Your task to perform on an android device: check data usage Image 0: 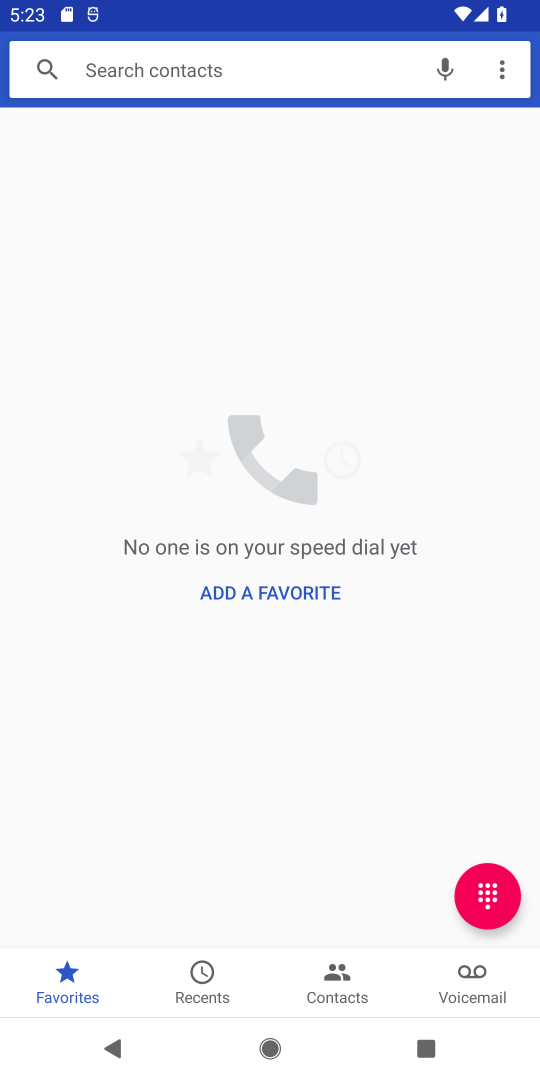
Step 0: press home button
Your task to perform on an android device: check data usage Image 1: 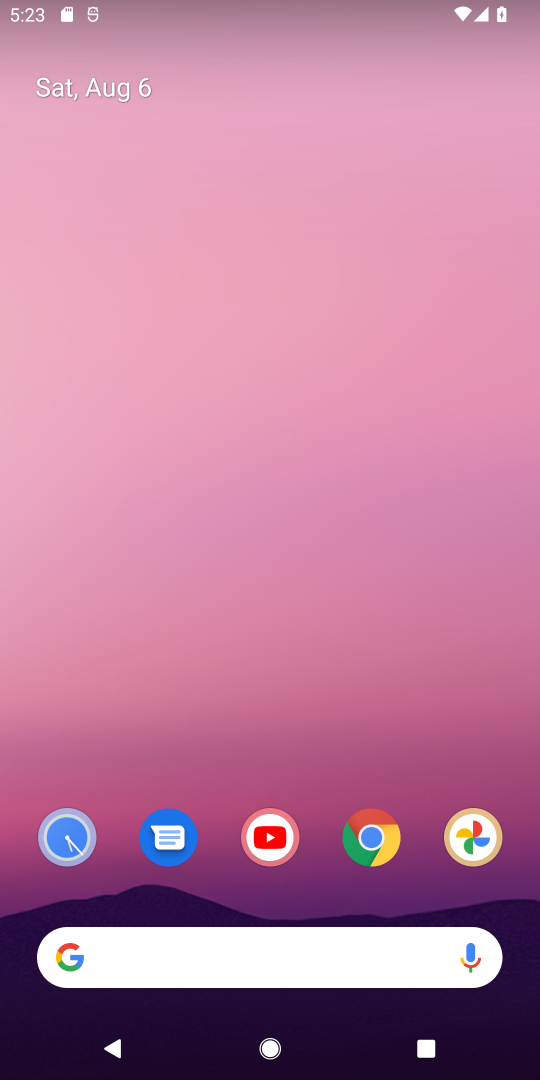
Step 1: drag from (286, 748) to (349, 233)
Your task to perform on an android device: check data usage Image 2: 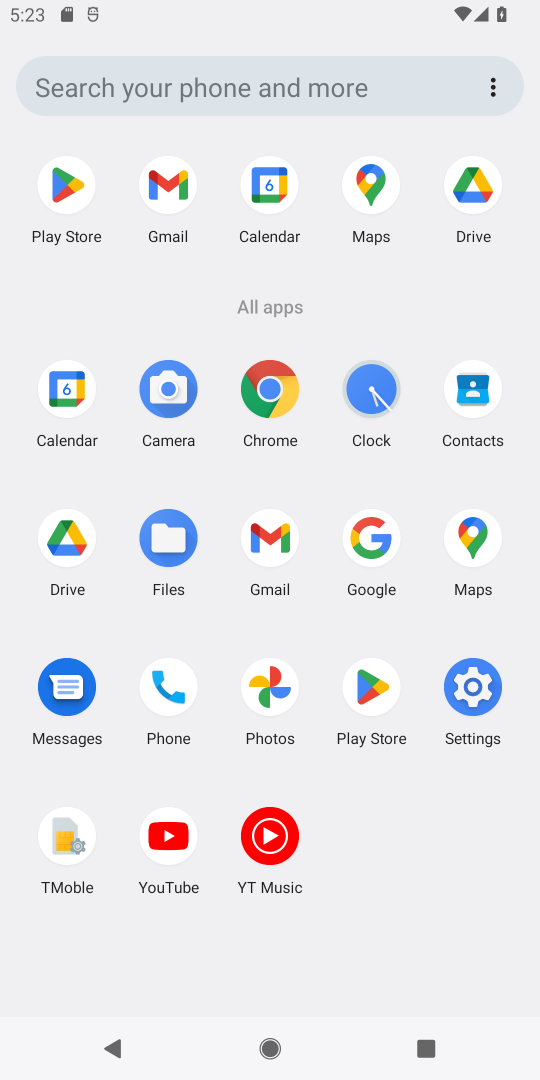
Step 2: click (465, 689)
Your task to perform on an android device: check data usage Image 3: 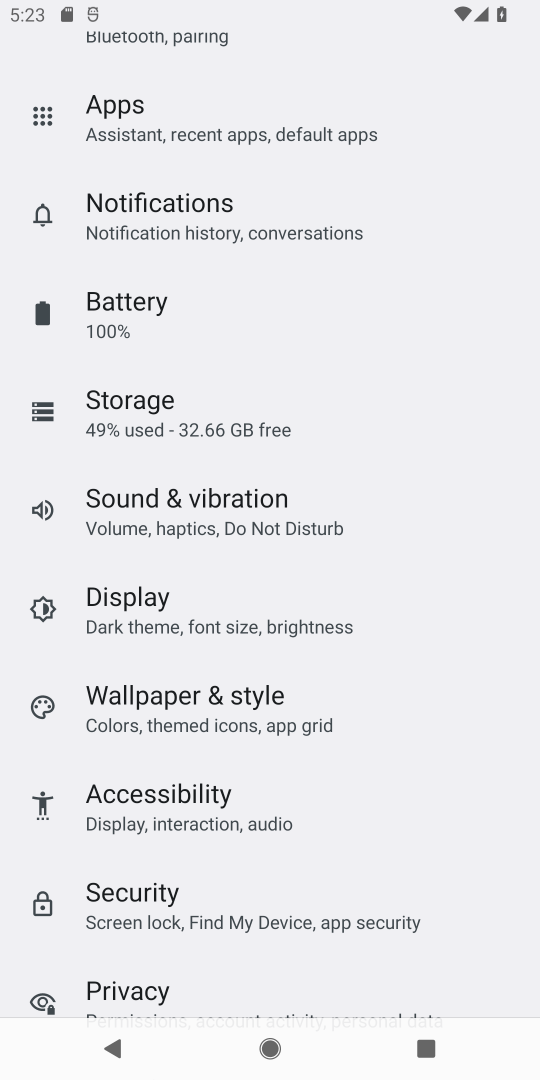
Step 3: drag from (208, 215) to (201, 743)
Your task to perform on an android device: check data usage Image 4: 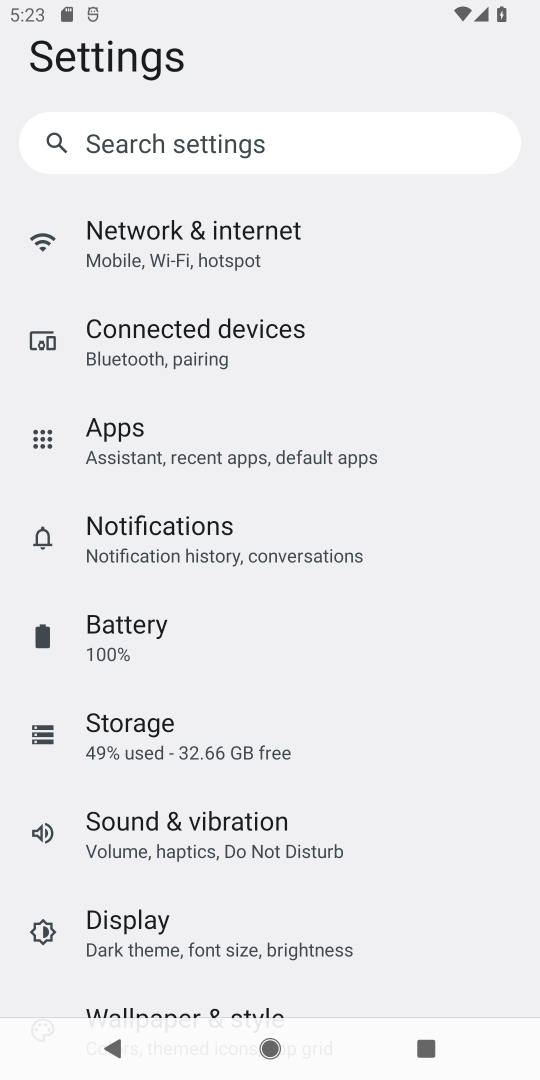
Step 4: click (222, 253)
Your task to perform on an android device: check data usage Image 5: 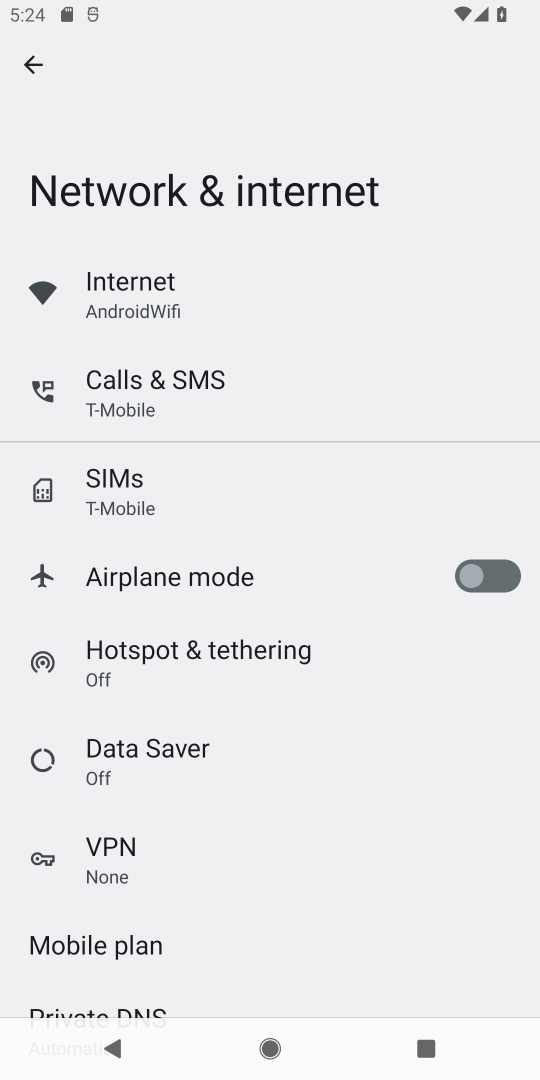
Step 5: click (182, 390)
Your task to perform on an android device: check data usage Image 6: 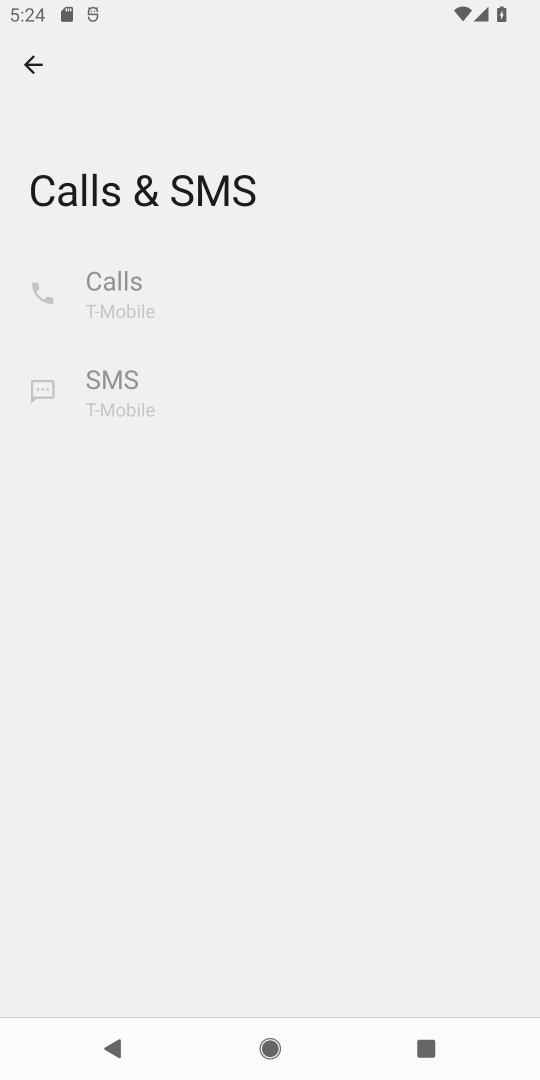
Step 6: task complete